Your task to perform on an android device: find snoozed emails in the gmail app Image 0: 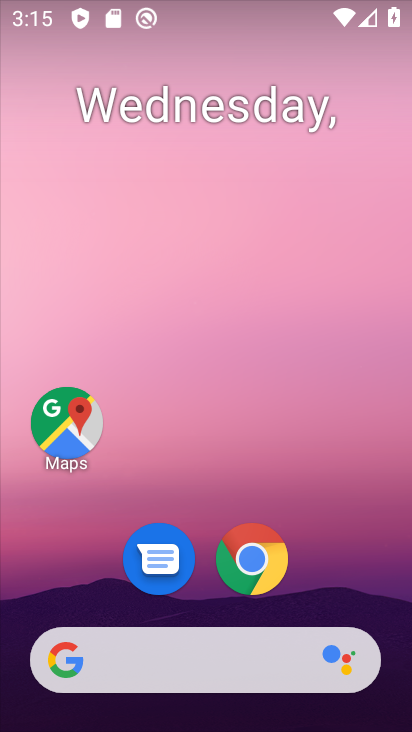
Step 0: drag from (79, 595) to (199, 219)
Your task to perform on an android device: find snoozed emails in the gmail app Image 1: 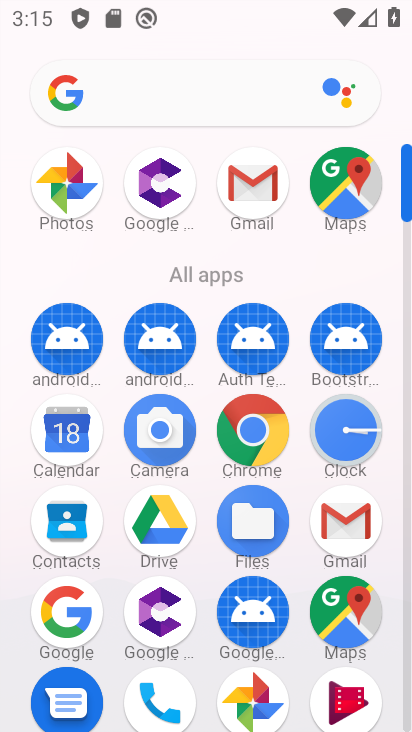
Step 1: click (338, 511)
Your task to perform on an android device: find snoozed emails in the gmail app Image 2: 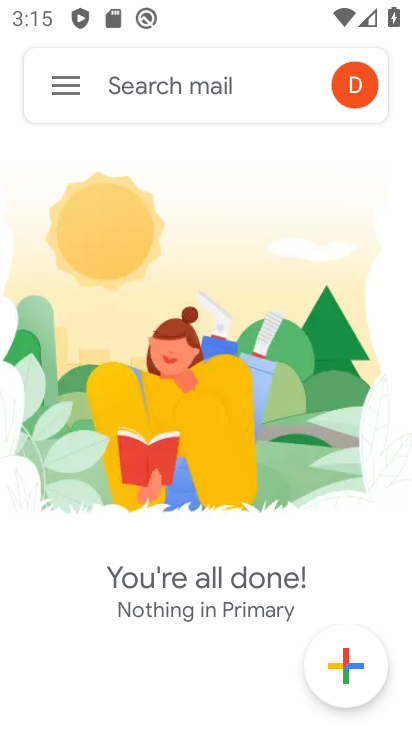
Step 2: click (69, 90)
Your task to perform on an android device: find snoozed emails in the gmail app Image 3: 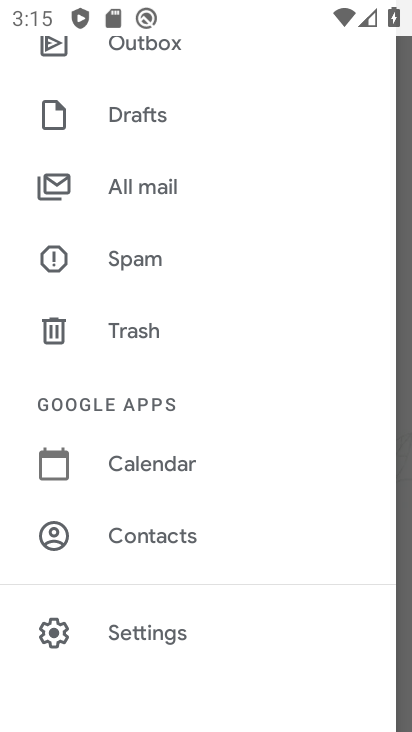
Step 3: drag from (173, 171) to (157, 588)
Your task to perform on an android device: find snoozed emails in the gmail app Image 4: 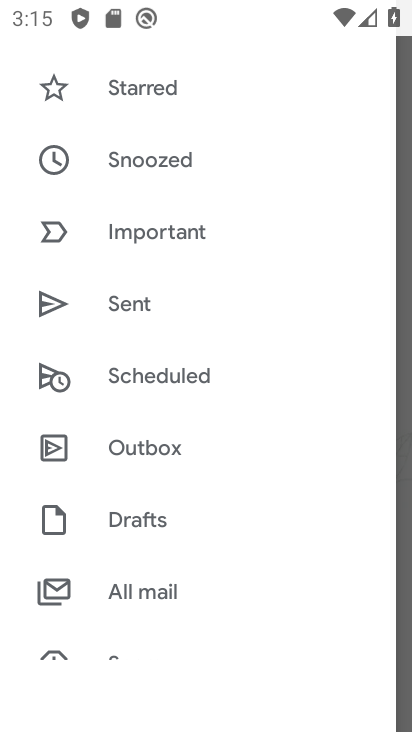
Step 4: click (183, 169)
Your task to perform on an android device: find snoozed emails in the gmail app Image 5: 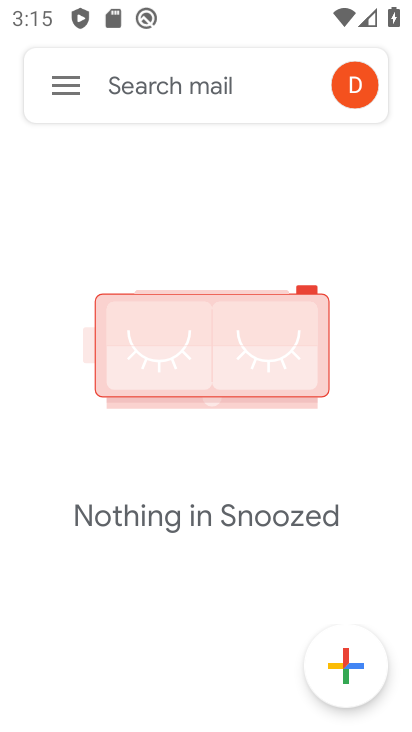
Step 5: task complete